Your task to perform on an android device: see tabs open on other devices in the chrome app Image 0: 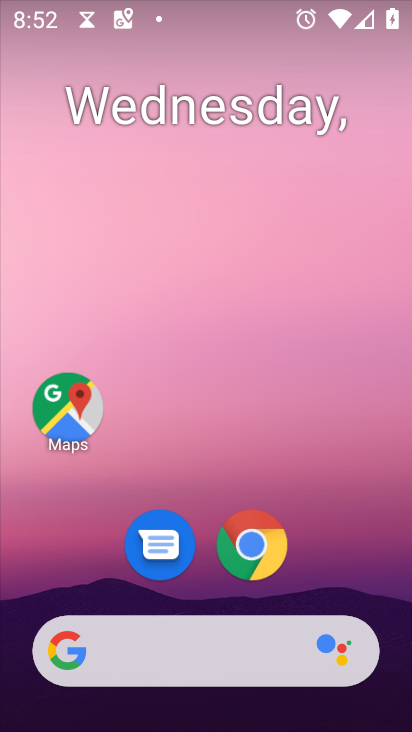
Step 0: click (234, 561)
Your task to perform on an android device: see tabs open on other devices in the chrome app Image 1: 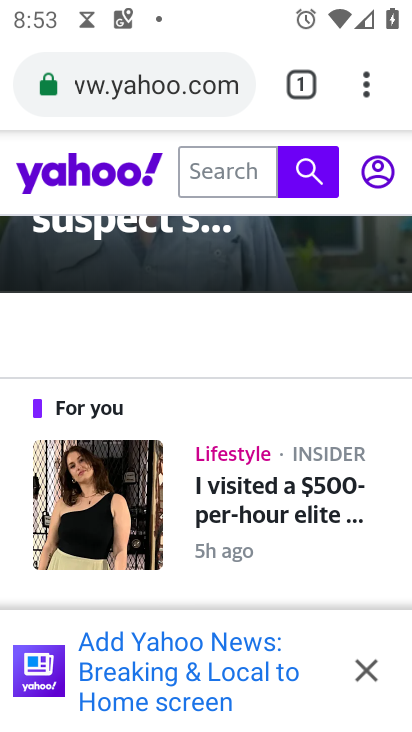
Step 1: task complete